Your task to perform on an android device: star an email in the gmail app Image 0: 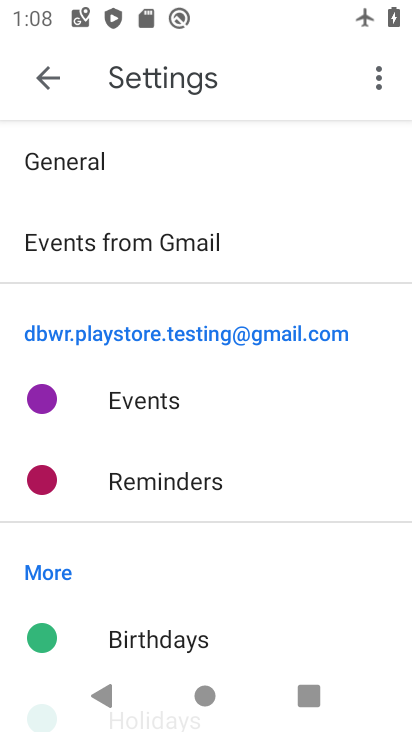
Step 0: press home button
Your task to perform on an android device: star an email in the gmail app Image 1: 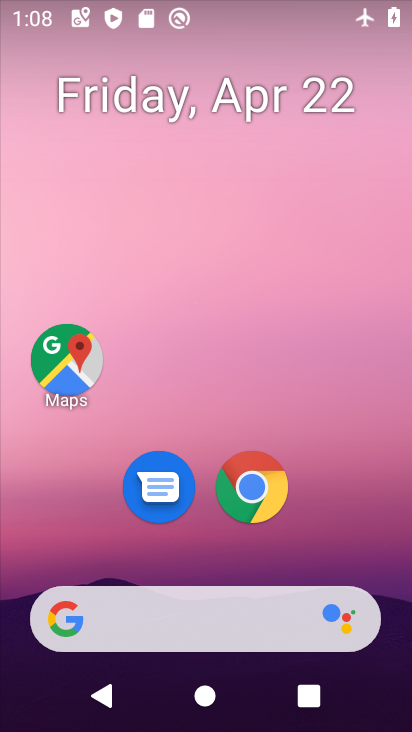
Step 1: drag from (343, 537) to (343, 148)
Your task to perform on an android device: star an email in the gmail app Image 2: 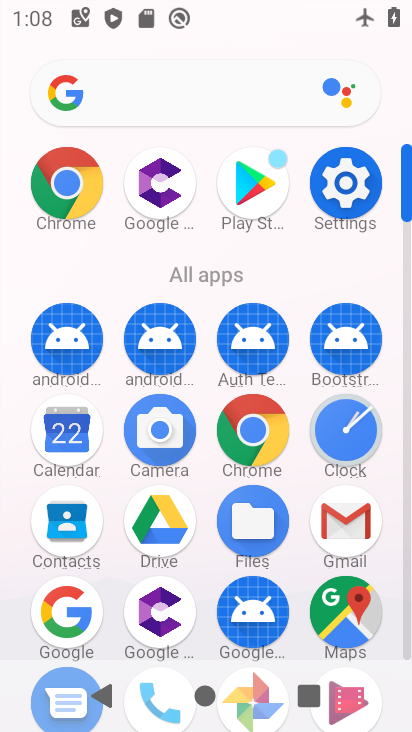
Step 2: click (346, 538)
Your task to perform on an android device: star an email in the gmail app Image 3: 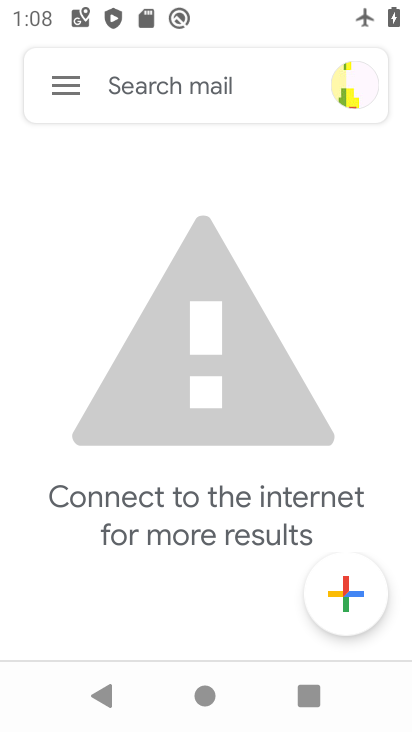
Step 3: click (59, 86)
Your task to perform on an android device: star an email in the gmail app Image 4: 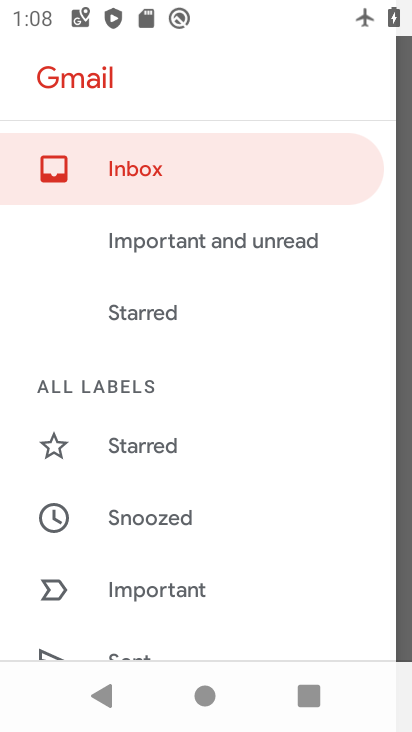
Step 4: drag from (183, 269) to (179, 529)
Your task to perform on an android device: star an email in the gmail app Image 5: 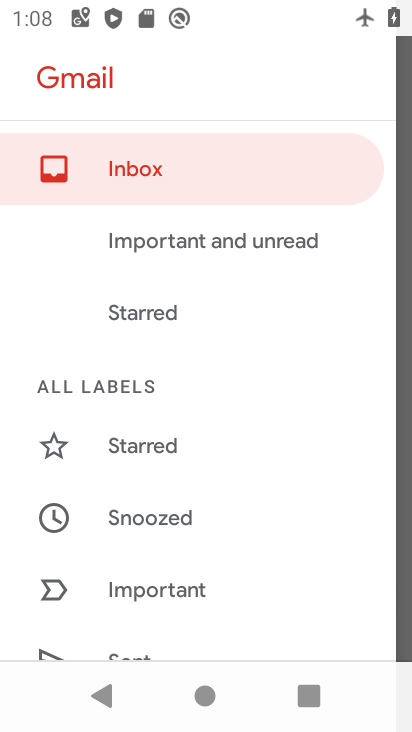
Step 5: drag from (158, 285) to (138, 586)
Your task to perform on an android device: star an email in the gmail app Image 6: 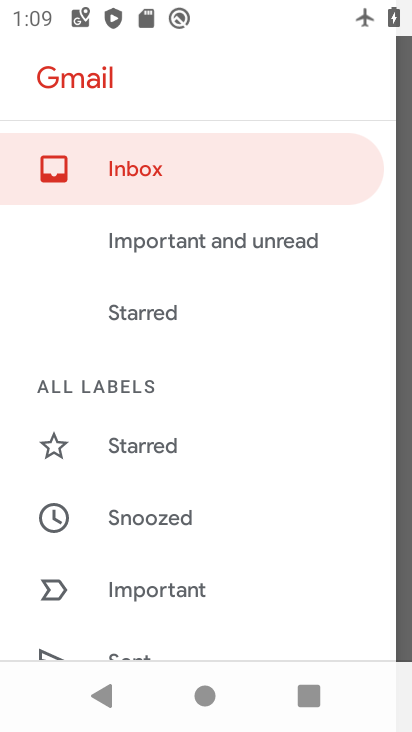
Step 6: click (86, 264)
Your task to perform on an android device: star an email in the gmail app Image 7: 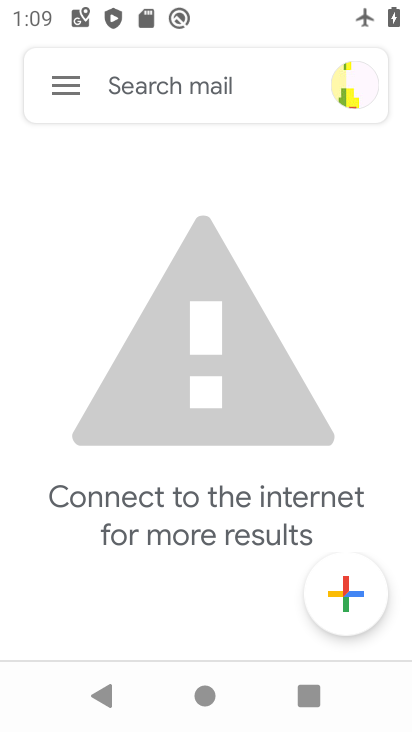
Step 7: press back button
Your task to perform on an android device: star an email in the gmail app Image 8: 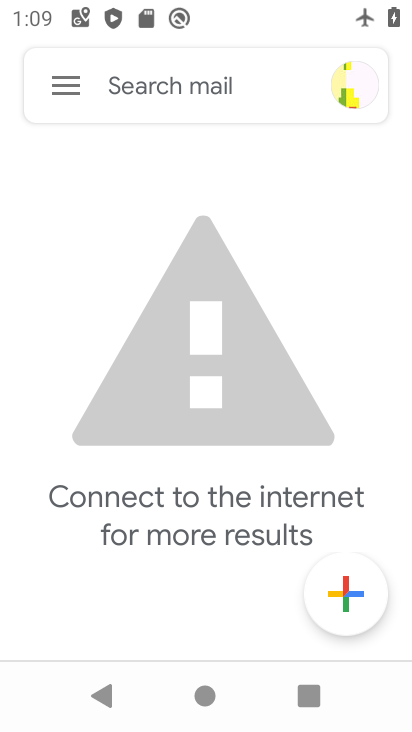
Step 8: click (74, 81)
Your task to perform on an android device: star an email in the gmail app Image 9: 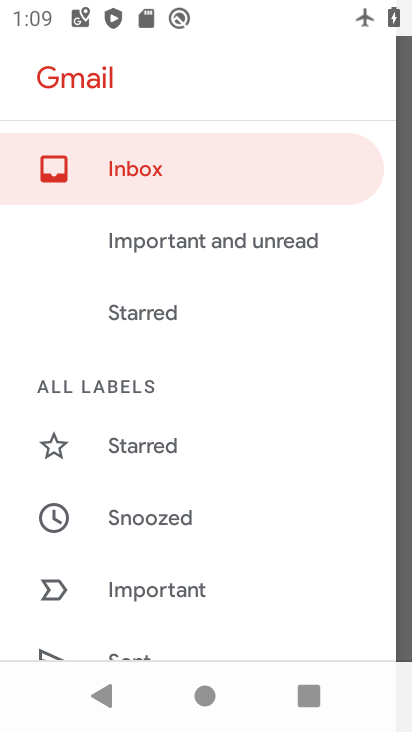
Step 9: drag from (236, 426) to (294, 273)
Your task to perform on an android device: star an email in the gmail app Image 10: 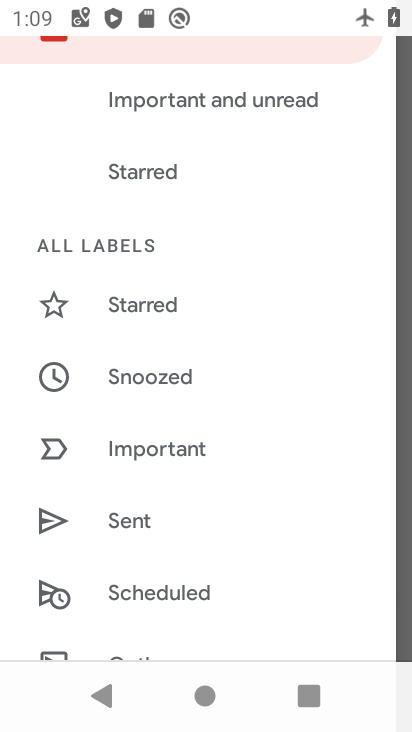
Step 10: drag from (242, 542) to (277, 449)
Your task to perform on an android device: star an email in the gmail app Image 11: 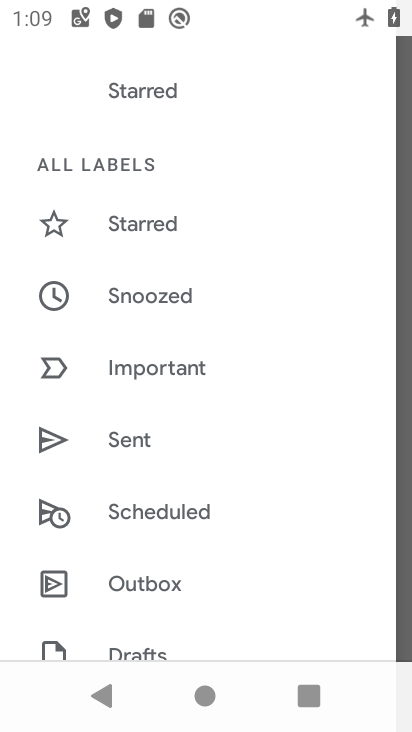
Step 11: drag from (278, 581) to (292, 435)
Your task to perform on an android device: star an email in the gmail app Image 12: 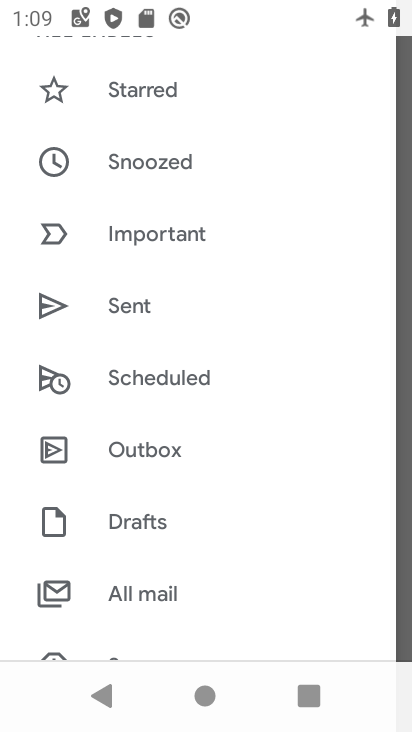
Step 12: click (196, 590)
Your task to perform on an android device: star an email in the gmail app Image 13: 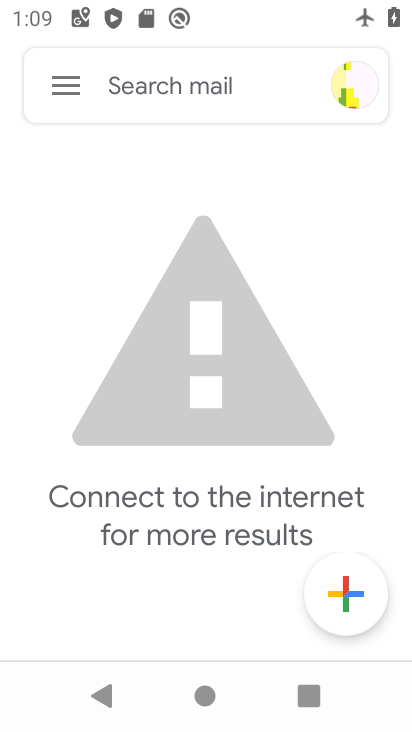
Step 13: task complete